Your task to perform on an android device: Search for pizza restaurants on Maps Image 0: 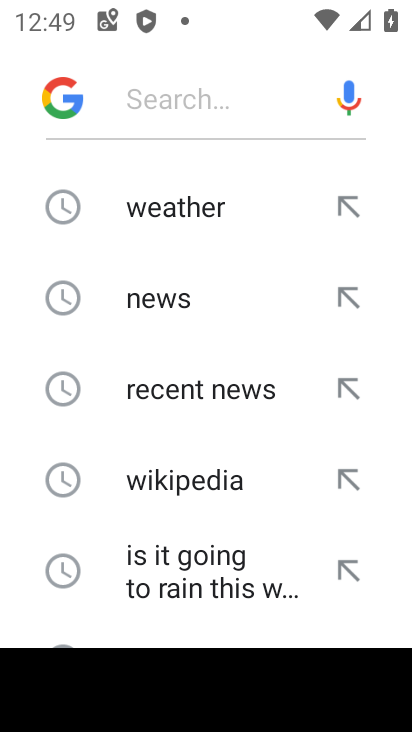
Step 0: press home button
Your task to perform on an android device: Search for pizza restaurants on Maps Image 1: 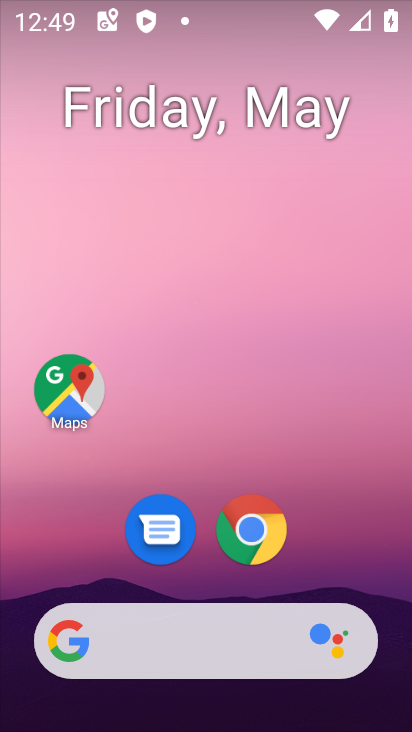
Step 1: click (76, 388)
Your task to perform on an android device: Search for pizza restaurants on Maps Image 2: 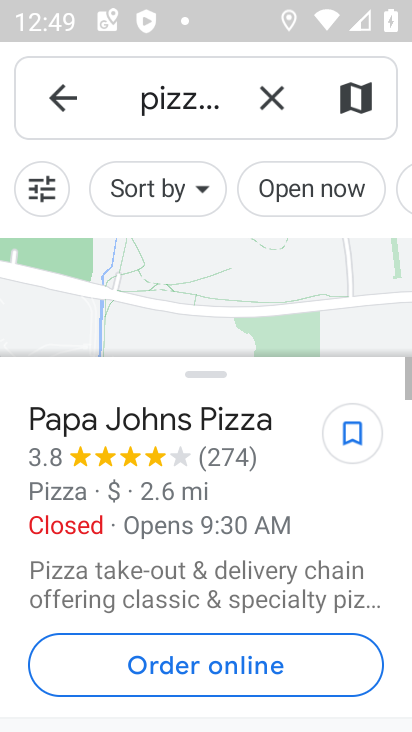
Step 2: task complete